Your task to perform on an android device: toggle sleep mode Image 0: 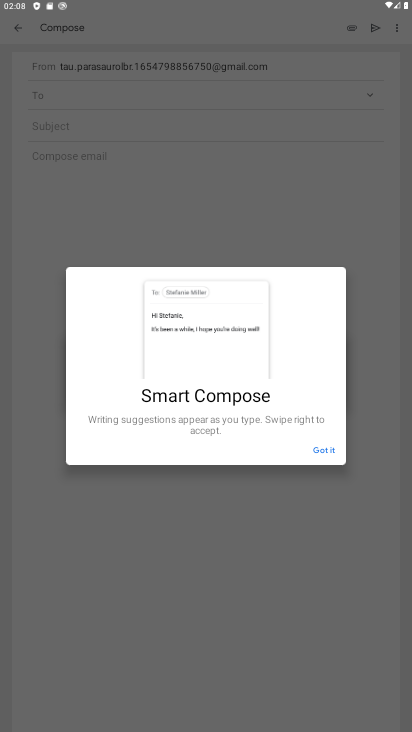
Step 0: press home button
Your task to perform on an android device: toggle sleep mode Image 1: 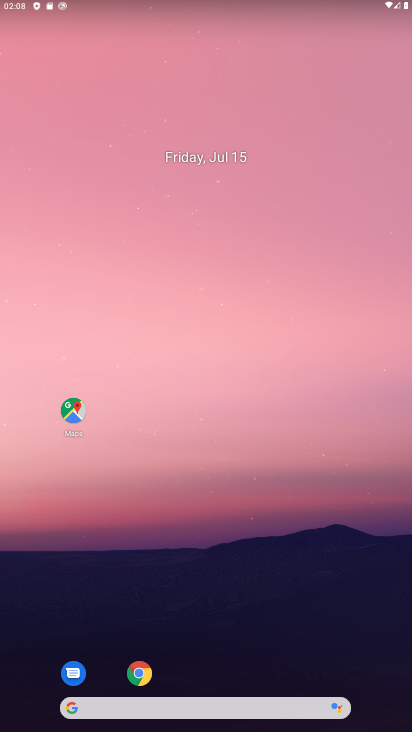
Step 1: drag from (270, 555) to (269, 36)
Your task to perform on an android device: toggle sleep mode Image 2: 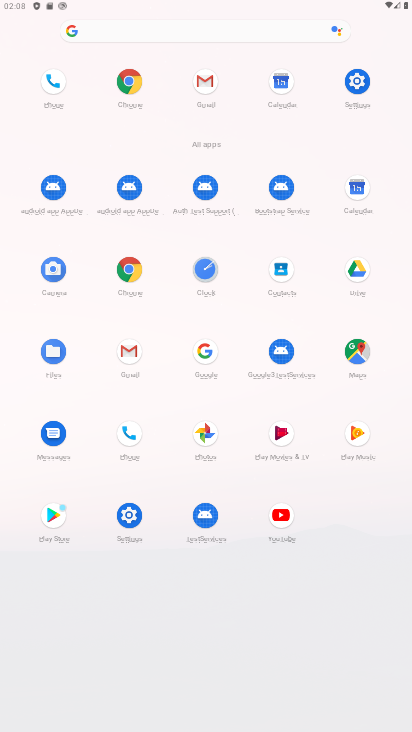
Step 2: click (361, 74)
Your task to perform on an android device: toggle sleep mode Image 3: 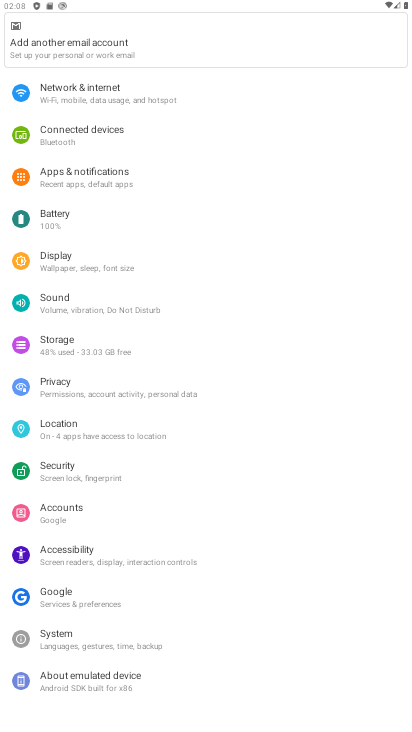
Step 3: drag from (134, 249) to (109, 515)
Your task to perform on an android device: toggle sleep mode Image 4: 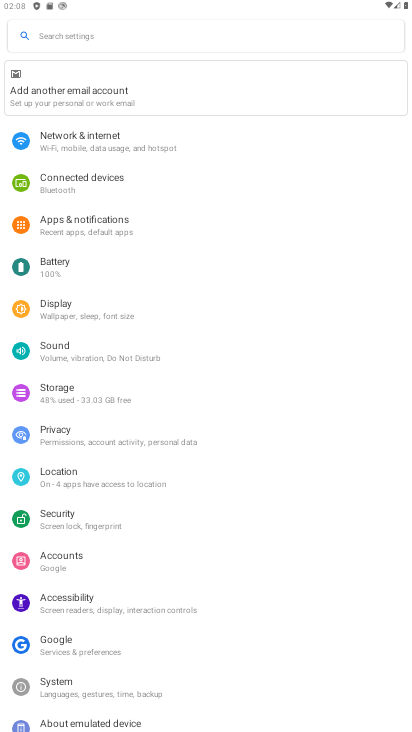
Step 4: click (59, 311)
Your task to perform on an android device: toggle sleep mode Image 5: 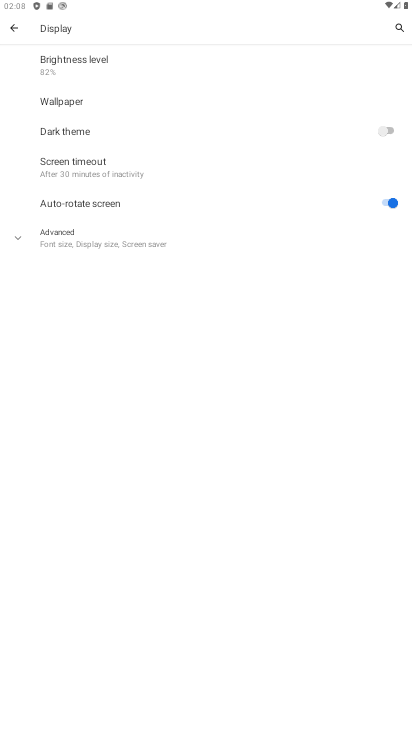
Step 5: click (49, 158)
Your task to perform on an android device: toggle sleep mode Image 6: 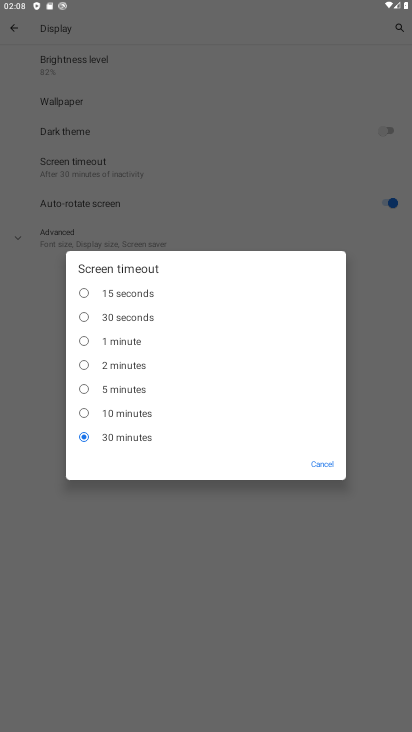
Step 6: click (106, 364)
Your task to perform on an android device: toggle sleep mode Image 7: 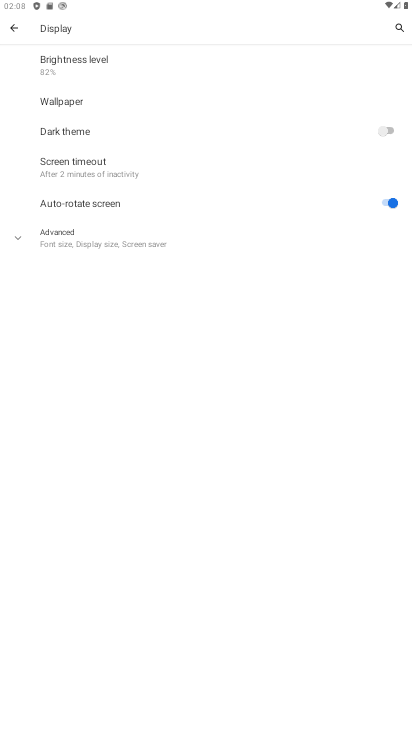
Step 7: task complete